Your task to perform on an android device: Open calendar and show me the first week of next month Image 0: 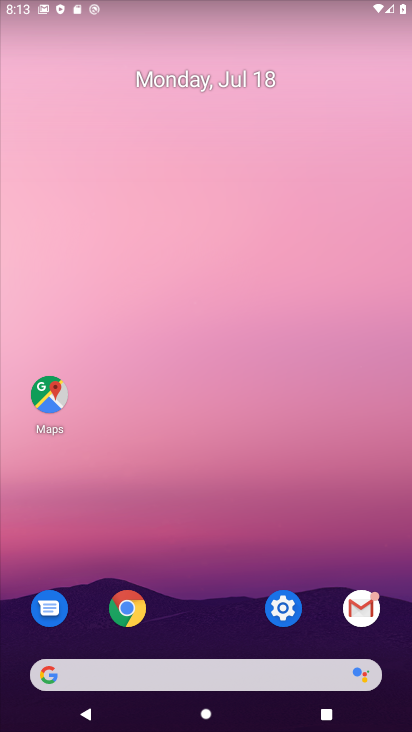
Step 0: drag from (244, 689) to (300, 3)
Your task to perform on an android device: Open calendar and show me the first week of next month Image 1: 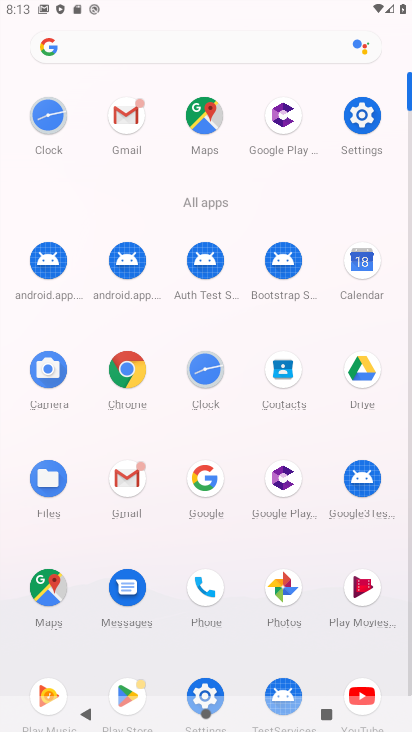
Step 1: click (356, 280)
Your task to perform on an android device: Open calendar and show me the first week of next month Image 2: 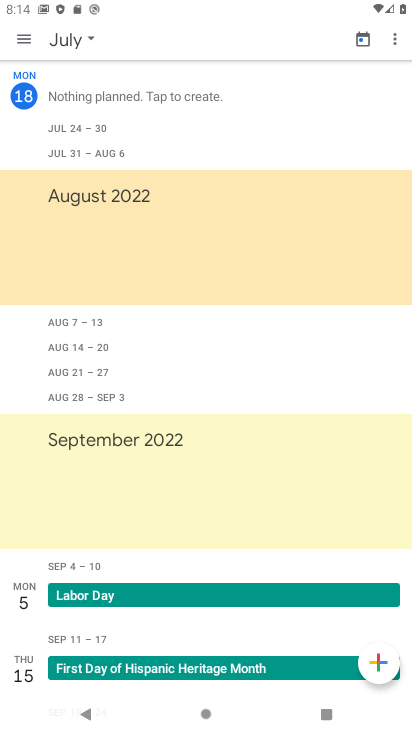
Step 2: click (10, 52)
Your task to perform on an android device: Open calendar and show me the first week of next month Image 3: 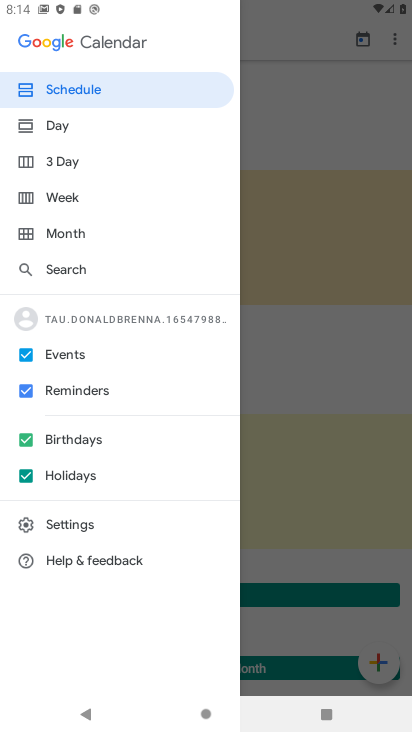
Step 3: click (73, 226)
Your task to perform on an android device: Open calendar and show me the first week of next month Image 4: 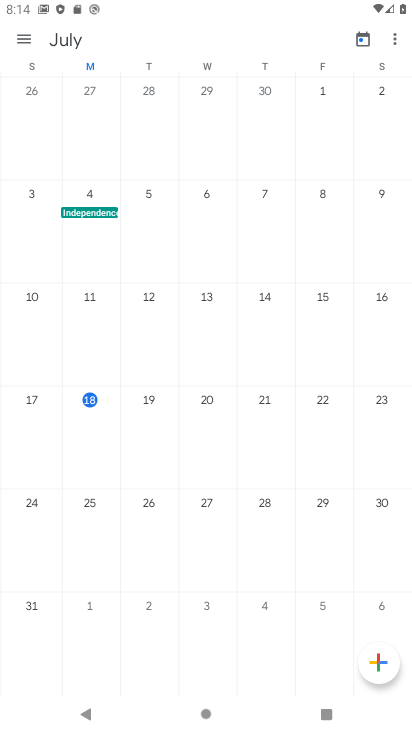
Step 4: drag from (368, 294) to (0, 318)
Your task to perform on an android device: Open calendar and show me the first week of next month Image 5: 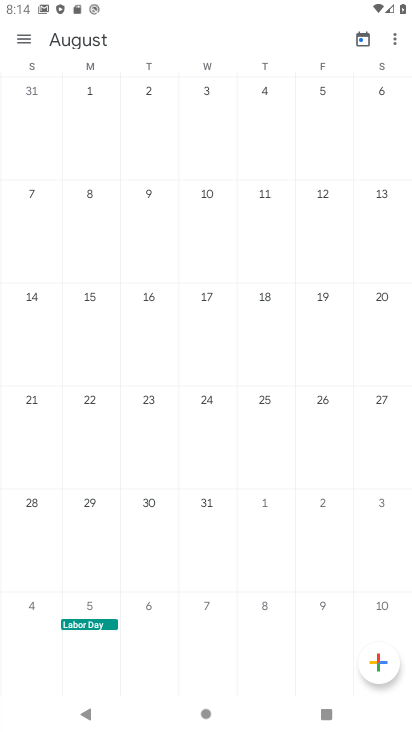
Step 5: click (96, 121)
Your task to perform on an android device: Open calendar and show me the first week of next month Image 6: 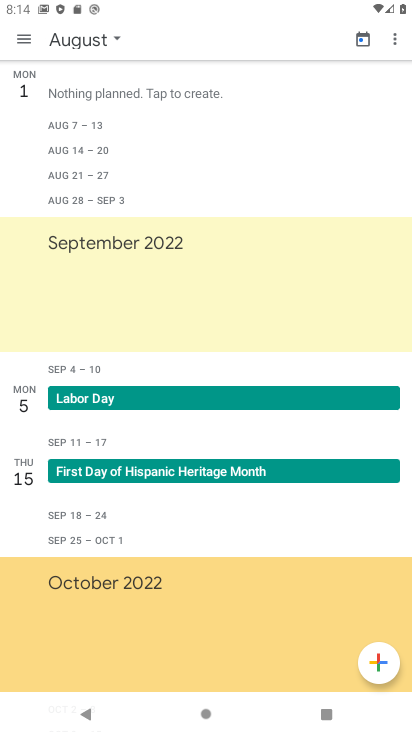
Step 6: task complete